Your task to perform on an android device: Show me the alarms in the clock app Image 0: 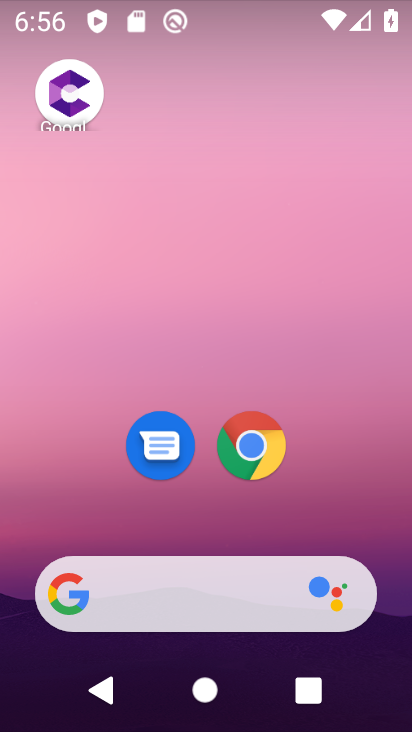
Step 0: drag from (345, 528) to (218, 192)
Your task to perform on an android device: Show me the alarms in the clock app Image 1: 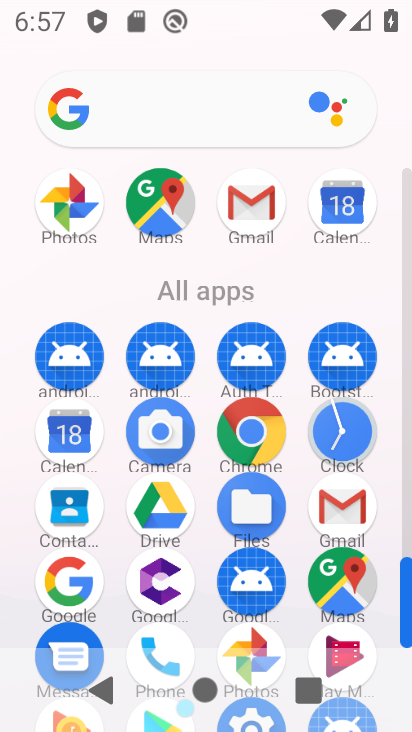
Step 1: click (343, 429)
Your task to perform on an android device: Show me the alarms in the clock app Image 2: 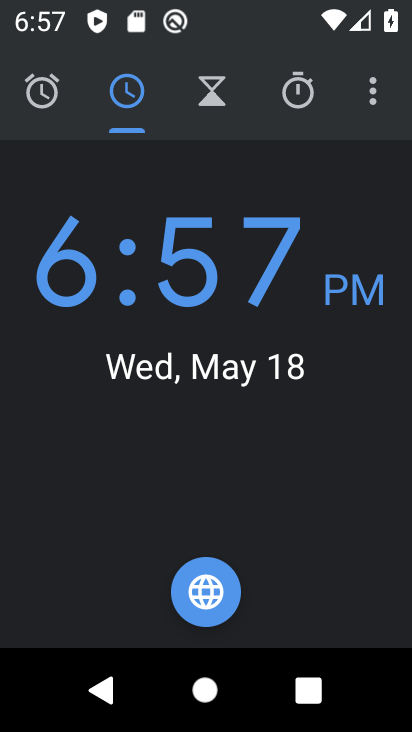
Step 2: click (51, 83)
Your task to perform on an android device: Show me the alarms in the clock app Image 3: 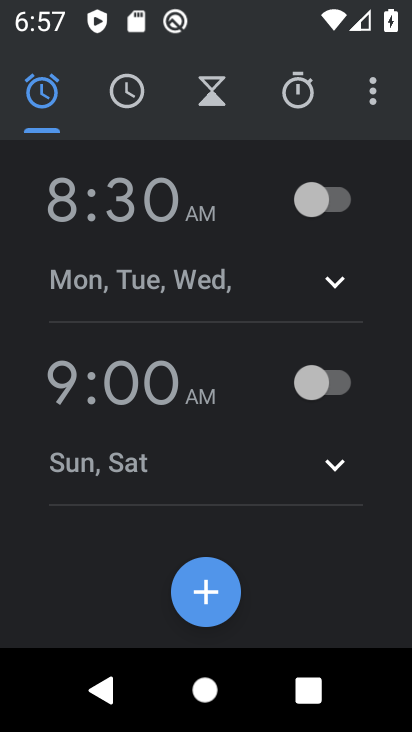
Step 3: task complete